Your task to perform on an android device: Open Android settings Image 0: 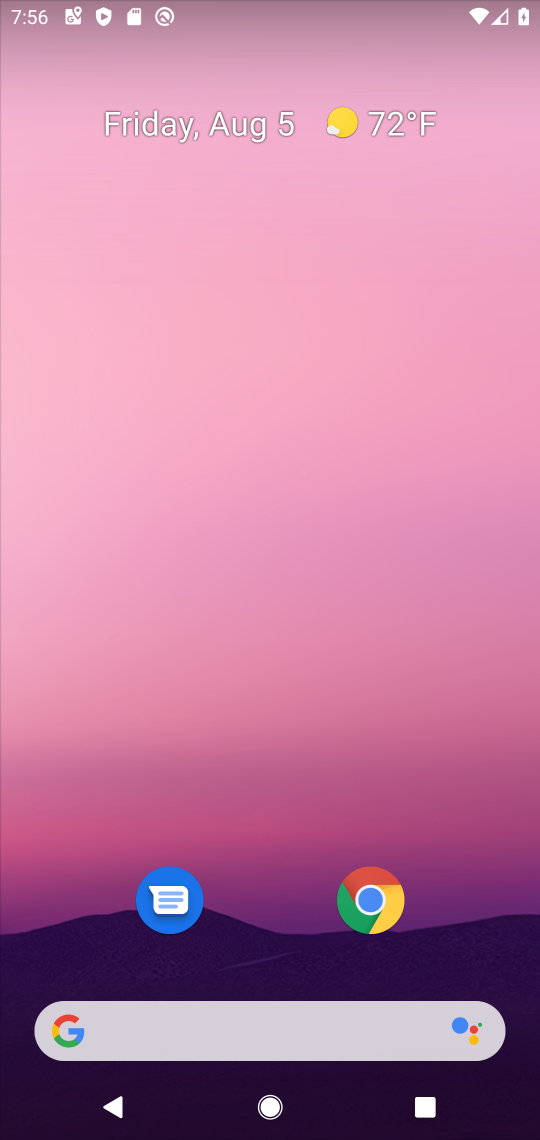
Step 0: drag from (249, 960) to (260, 508)
Your task to perform on an android device: Open Android settings Image 1: 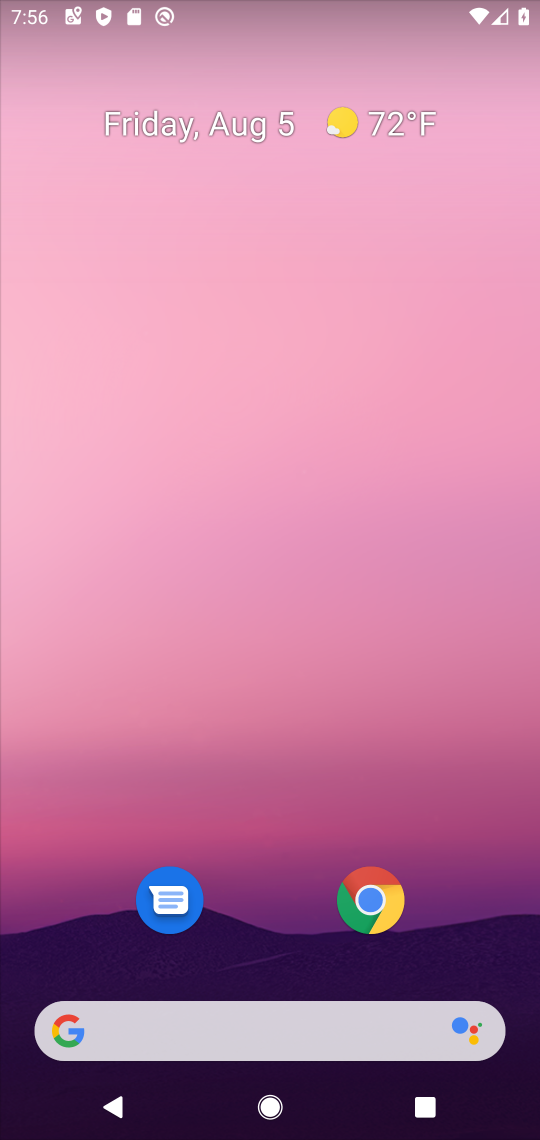
Step 1: drag from (277, 975) to (364, 267)
Your task to perform on an android device: Open Android settings Image 2: 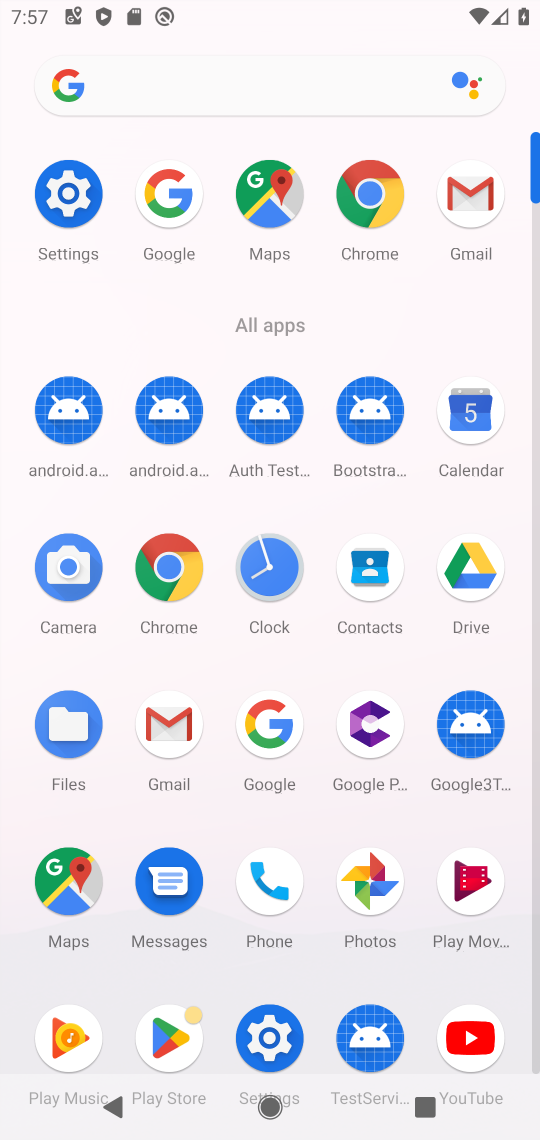
Step 2: click (265, 1046)
Your task to perform on an android device: Open Android settings Image 3: 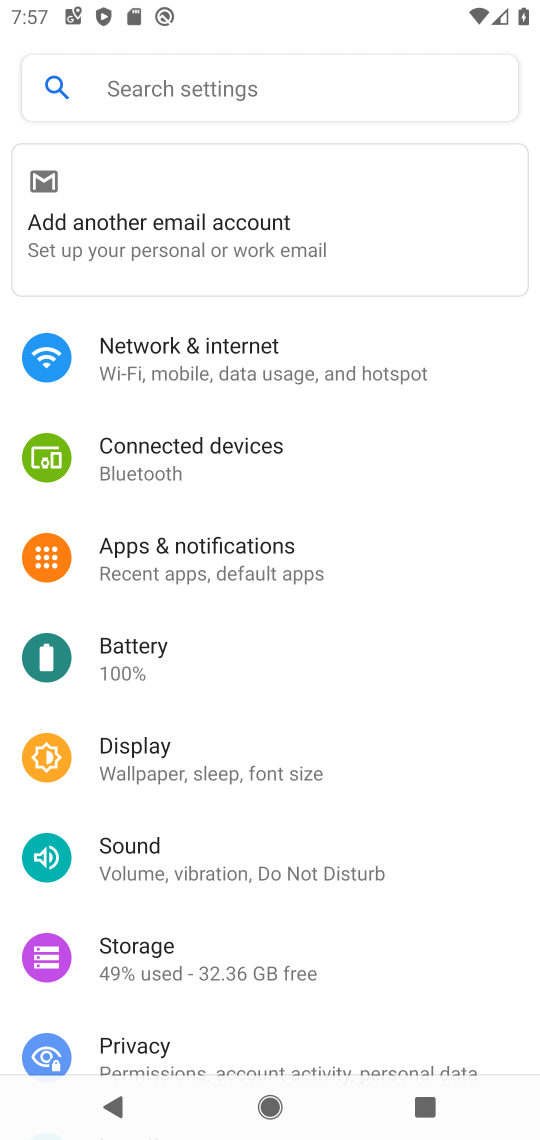
Step 3: task complete